Your task to perform on an android device: create a new album in the google photos Image 0: 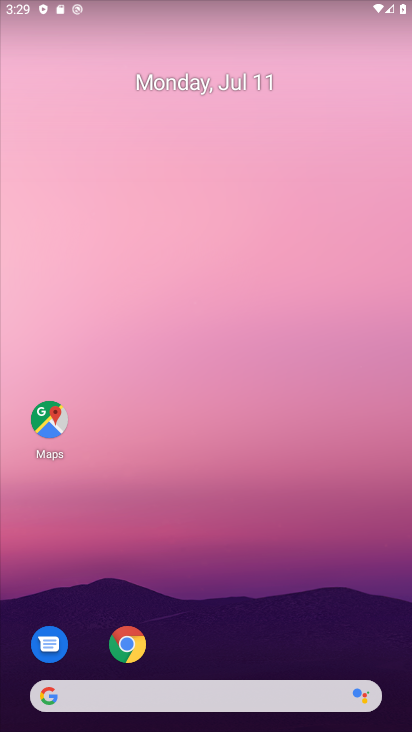
Step 0: drag from (226, 666) to (218, 114)
Your task to perform on an android device: create a new album in the google photos Image 1: 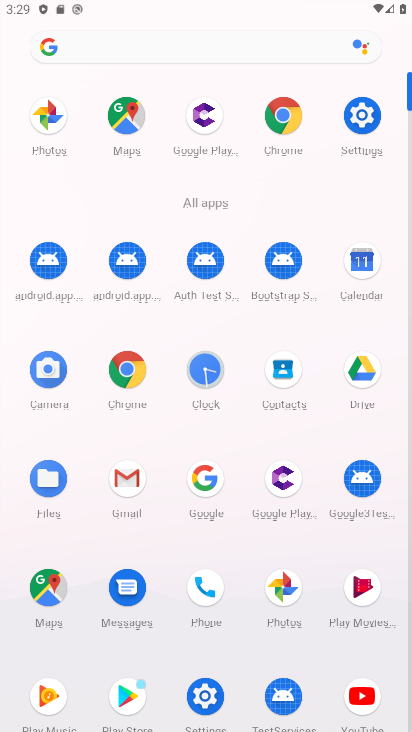
Step 1: click (286, 583)
Your task to perform on an android device: create a new album in the google photos Image 2: 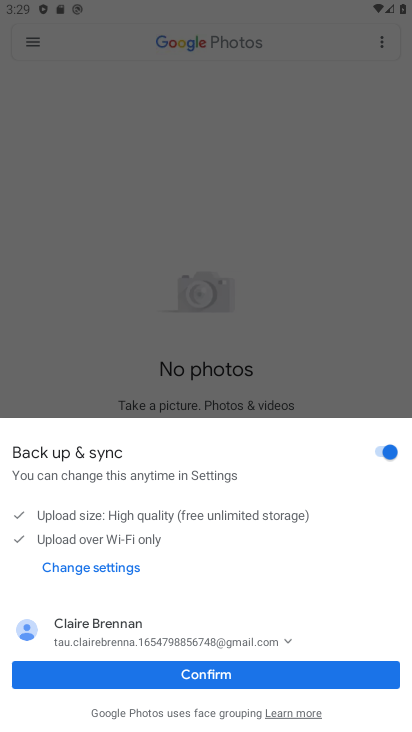
Step 2: click (217, 673)
Your task to perform on an android device: create a new album in the google photos Image 3: 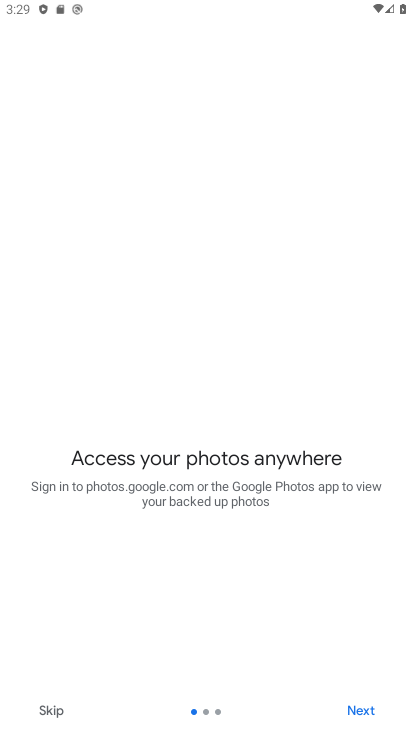
Step 3: click (367, 704)
Your task to perform on an android device: create a new album in the google photos Image 4: 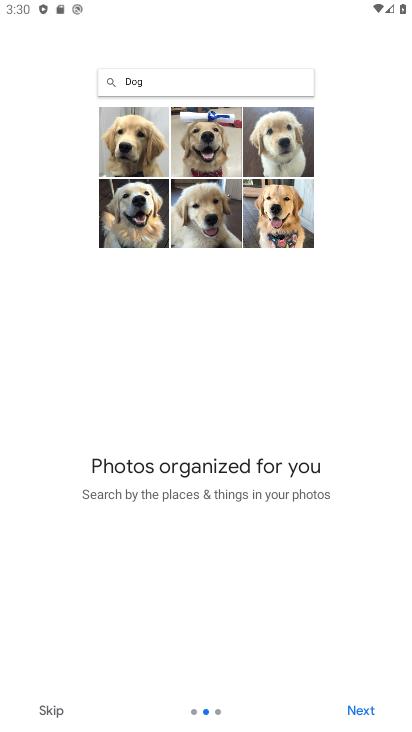
Step 4: click (362, 707)
Your task to perform on an android device: create a new album in the google photos Image 5: 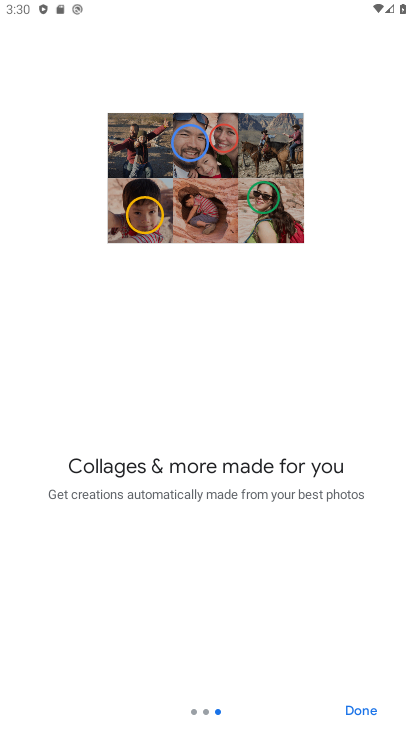
Step 5: click (362, 706)
Your task to perform on an android device: create a new album in the google photos Image 6: 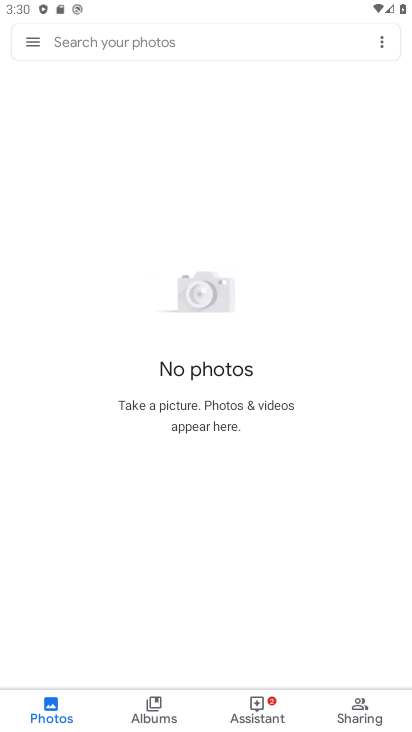
Step 6: click (385, 34)
Your task to perform on an android device: create a new album in the google photos Image 7: 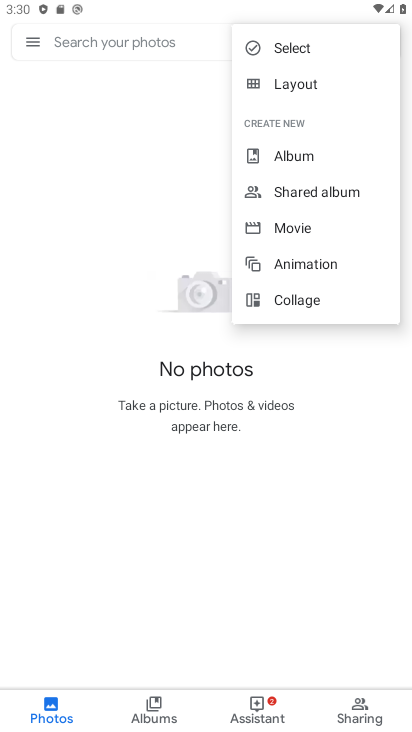
Step 7: click (311, 150)
Your task to perform on an android device: create a new album in the google photos Image 8: 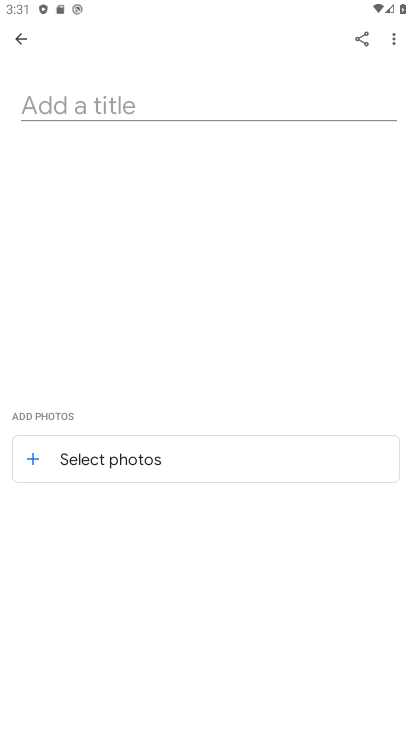
Step 8: click (90, 464)
Your task to perform on an android device: create a new album in the google photos Image 9: 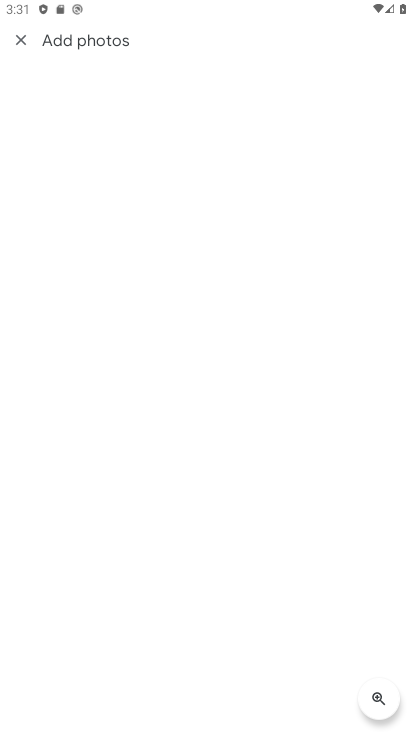
Step 9: task complete